Your task to perform on an android device: Go to notification settings Image 0: 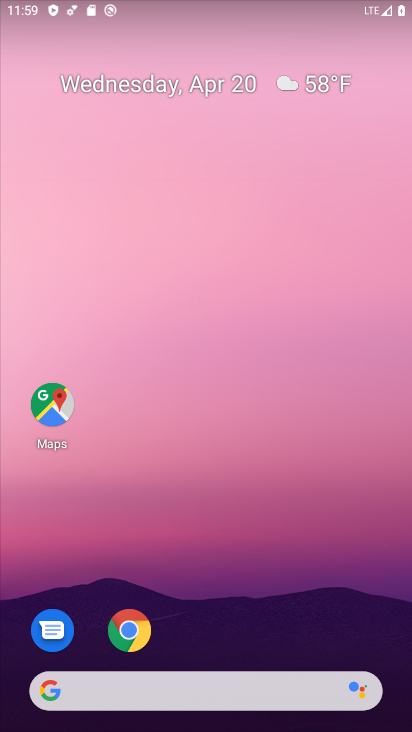
Step 0: drag from (173, 676) to (303, 192)
Your task to perform on an android device: Go to notification settings Image 1: 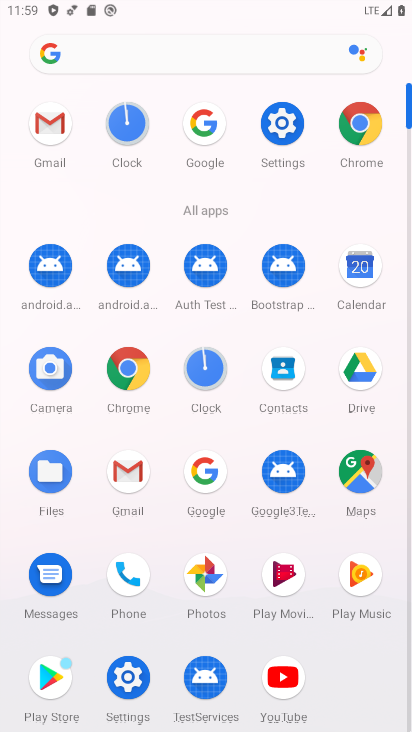
Step 1: click (288, 129)
Your task to perform on an android device: Go to notification settings Image 2: 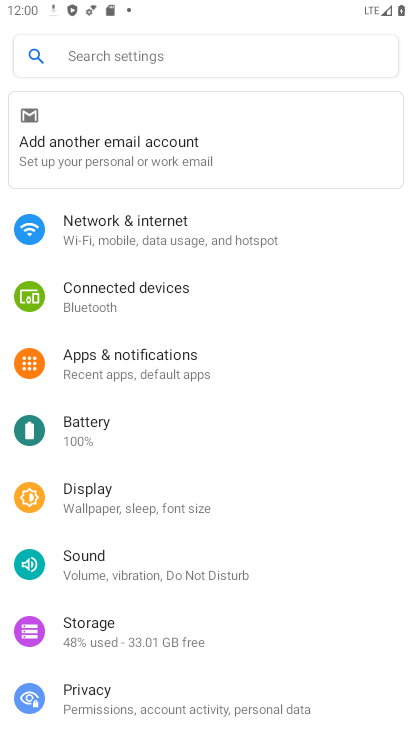
Step 2: click (156, 364)
Your task to perform on an android device: Go to notification settings Image 3: 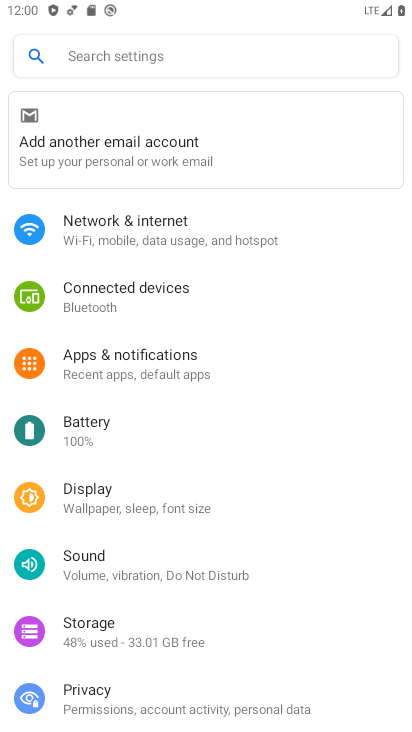
Step 3: click (140, 363)
Your task to perform on an android device: Go to notification settings Image 4: 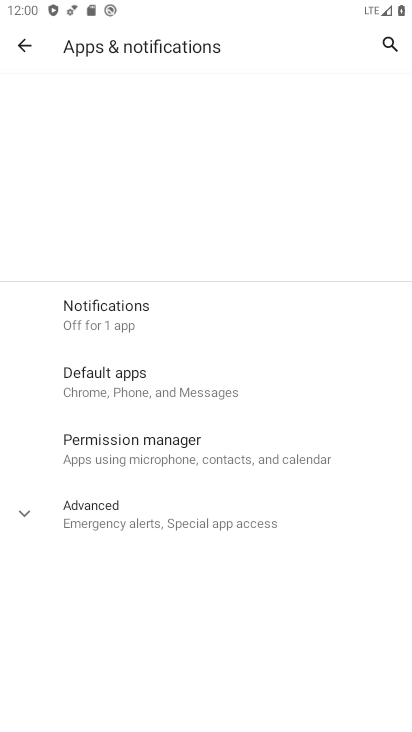
Step 4: click (114, 319)
Your task to perform on an android device: Go to notification settings Image 5: 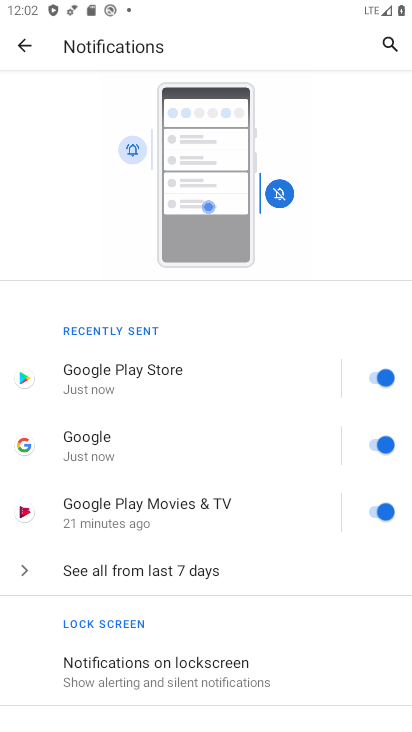
Step 5: task complete